Your task to perform on an android device: When is my next appointment? Image 0: 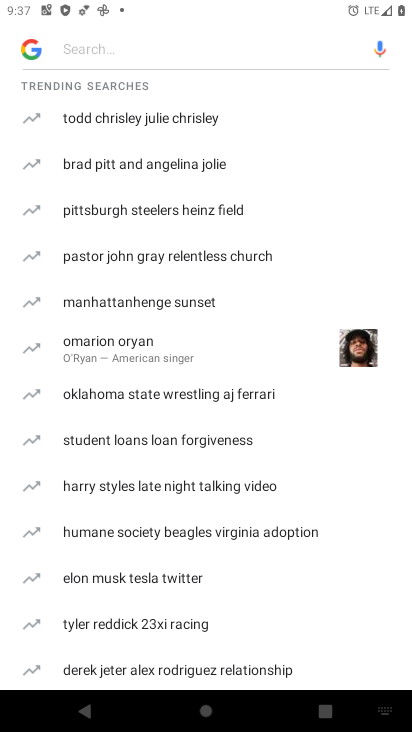
Step 0: press home button
Your task to perform on an android device: When is my next appointment? Image 1: 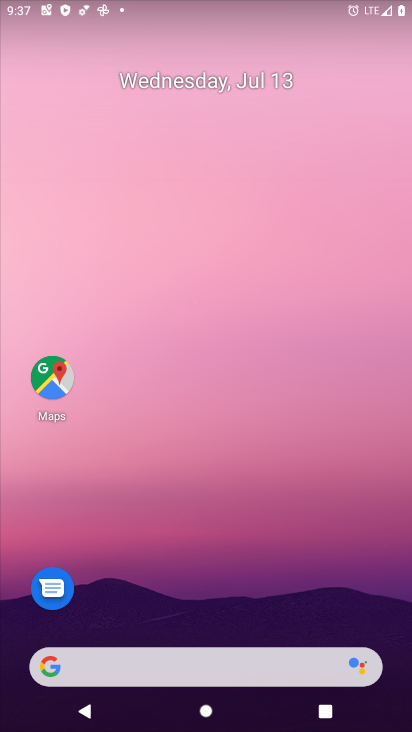
Step 1: click (216, 670)
Your task to perform on an android device: When is my next appointment? Image 2: 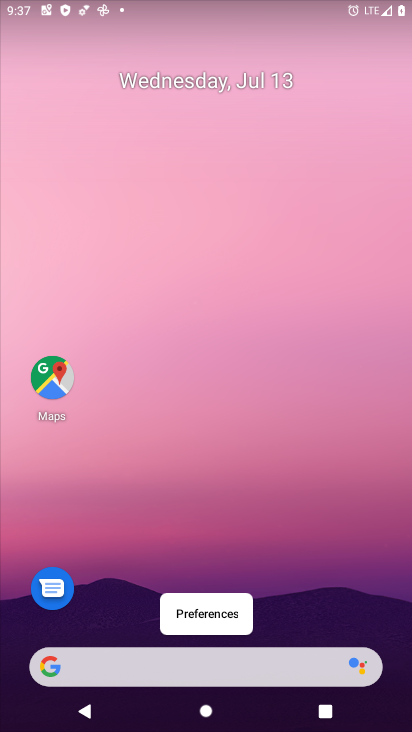
Step 2: drag from (221, 615) to (203, 130)
Your task to perform on an android device: When is my next appointment? Image 3: 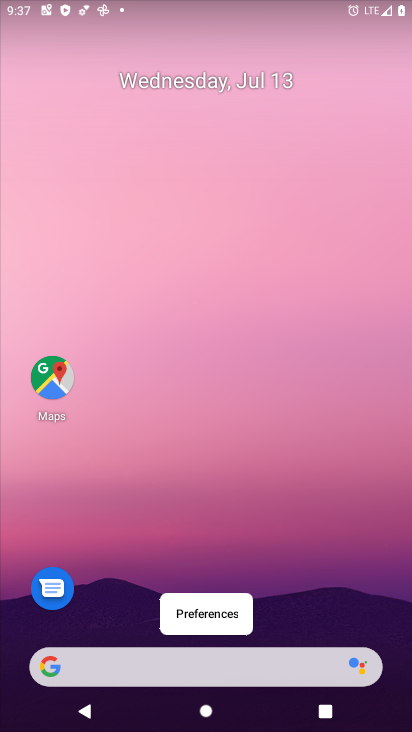
Step 3: drag from (262, 710) to (141, 20)
Your task to perform on an android device: When is my next appointment? Image 4: 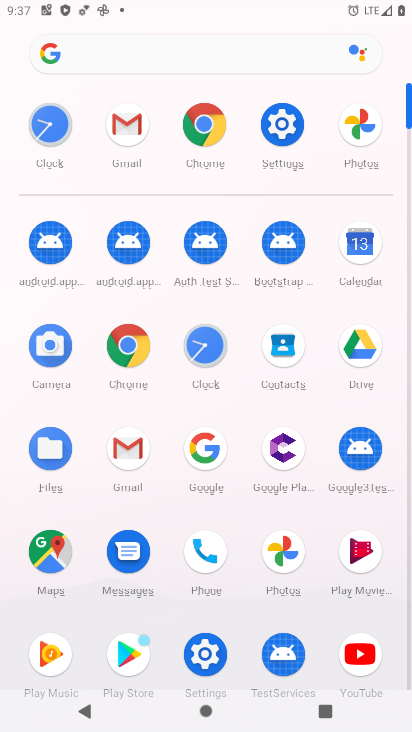
Step 4: click (376, 260)
Your task to perform on an android device: When is my next appointment? Image 5: 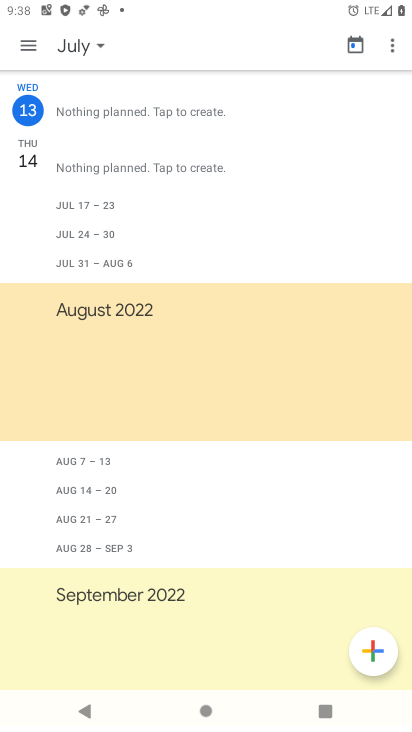
Step 5: click (357, 43)
Your task to perform on an android device: When is my next appointment? Image 6: 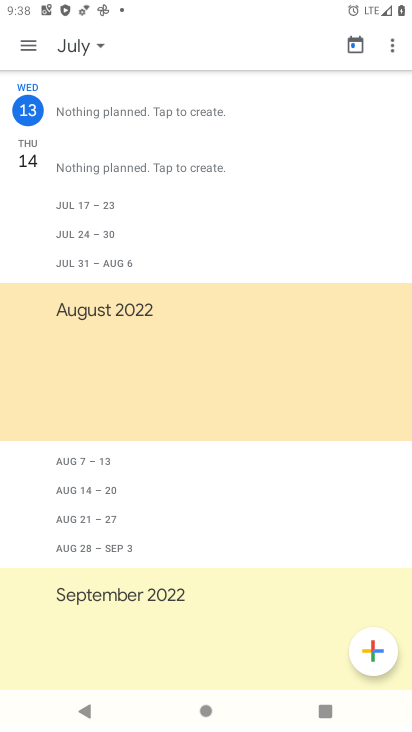
Step 6: click (353, 40)
Your task to perform on an android device: When is my next appointment? Image 7: 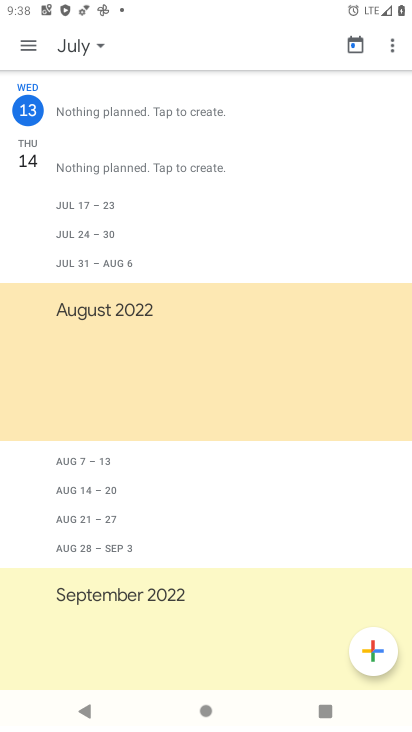
Step 7: click (353, 40)
Your task to perform on an android device: When is my next appointment? Image 8: 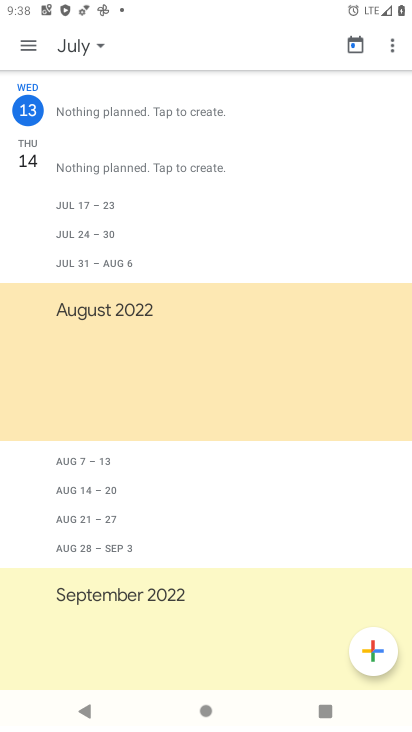
Step 8: click (353, 40)
Your task to perform on an android device: When is my next appointment? Image 9: 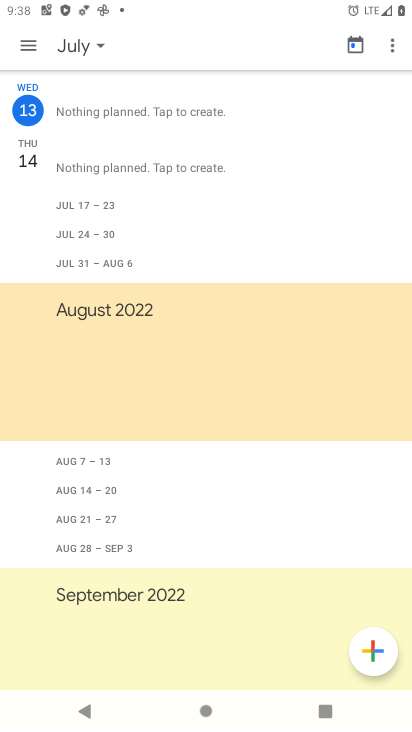
Step 9: click (353, 48)
Your task to perform on an android device: When is my next appointment? Image 10: 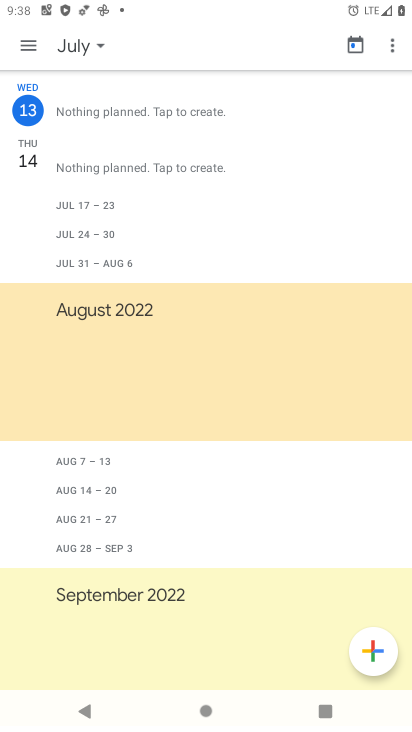
Step 10: click (355, 38)
Your task to perform on an android device: When is my next appointment? Image 11: 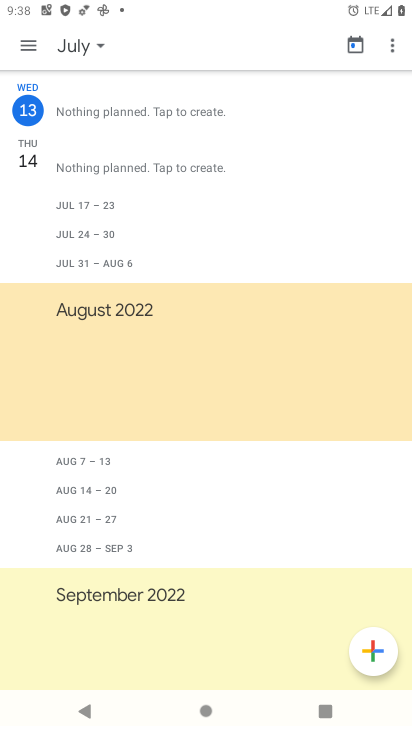
Step 11: click (351, 42)
Your task to perform on an android device: When is my next appointment? Image 12: 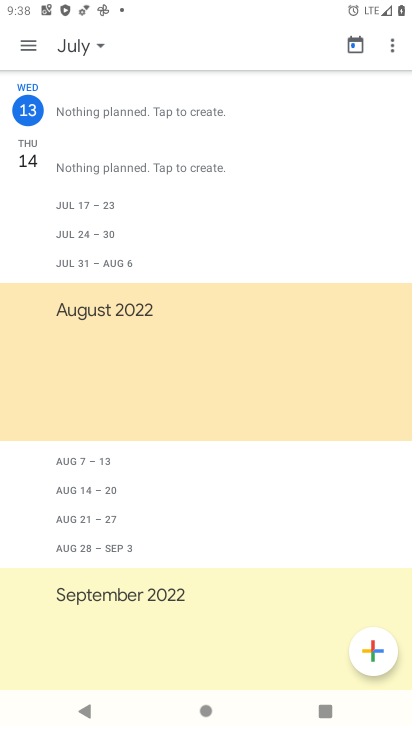
Step 12: task complete